Your task to perform on an android device: What is the news today? Image 0: 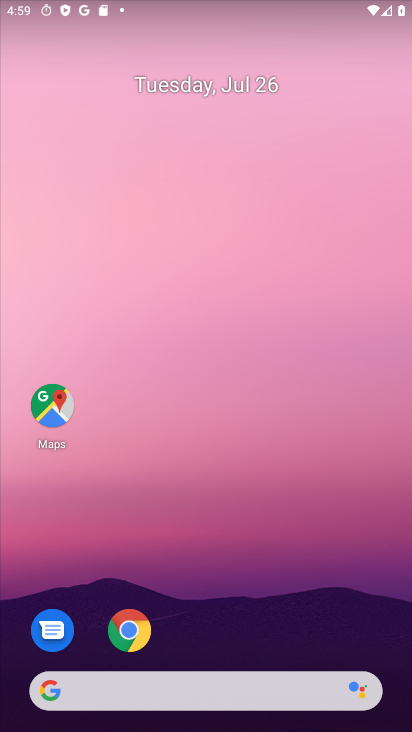
Step 0: drag from (210, 500) to (156, 20)
Your task to perform on an android device: What is the news today? Image 1: 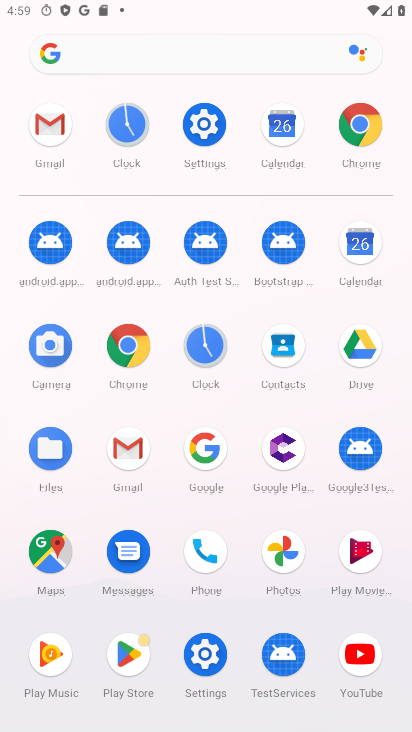
Step 1: click (355, 123)
Your task to perform on an android device: What is the news today? Image 2: 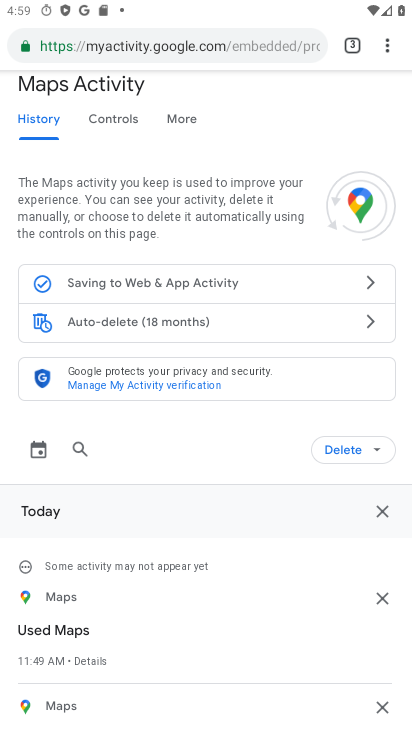
Step 2: click (174, 46)
Your task to perform on an android device: What is the news today? Image 3: 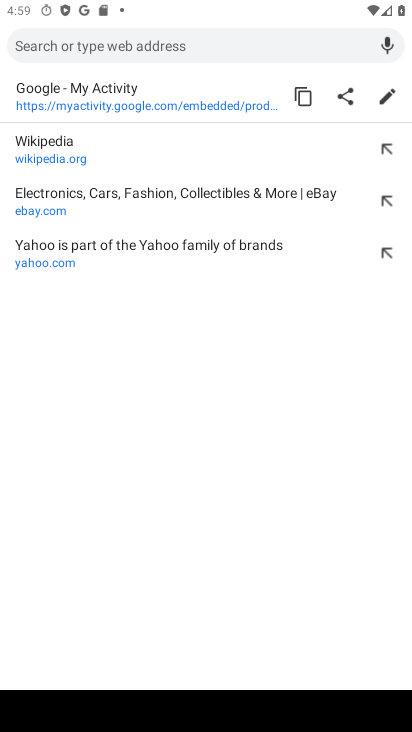
Step 3: type "news"
Your task to perform on an android device: What is the news today? Image 4: 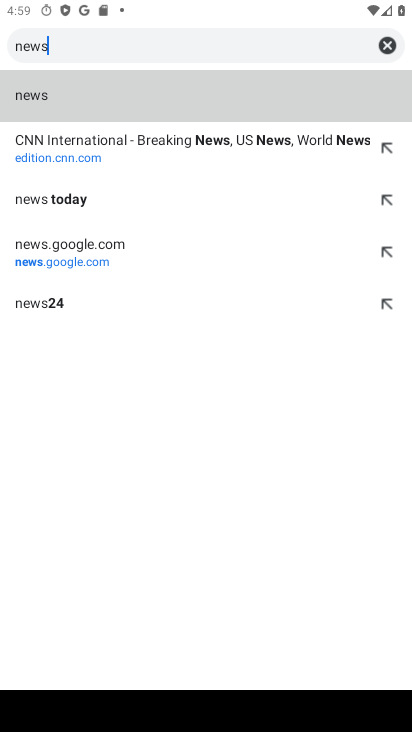
Step 4: click (87, 93)
Your task to perform on an android device: What is the news today? Image 5: 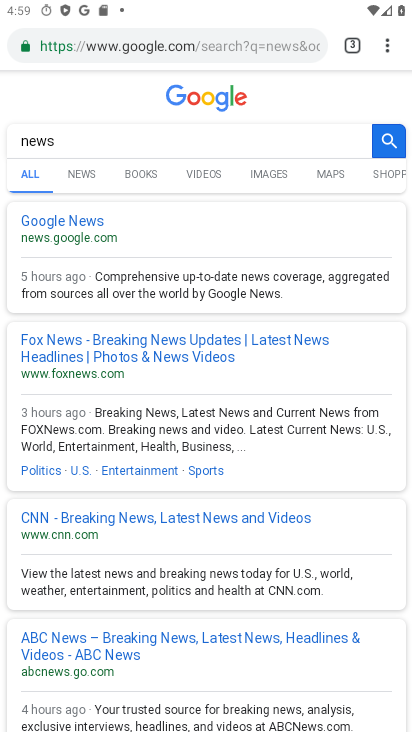
Step 5: click (88, 214)
Your task to perform on an android device: What is the news today? Image 6: 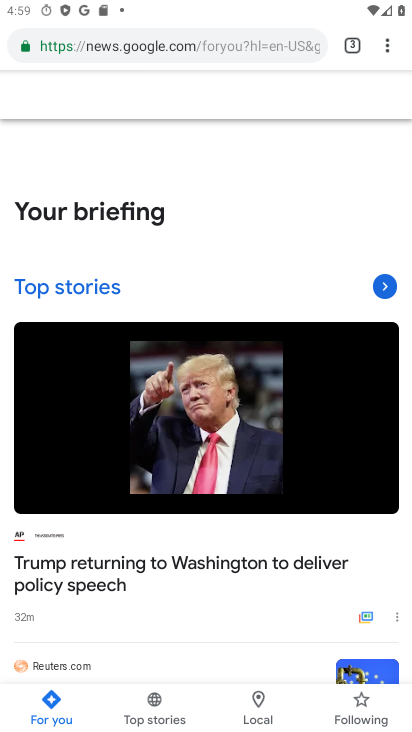
Step 6: task complete